Your task to perform on an android device: Open Wikipedia Image 0: 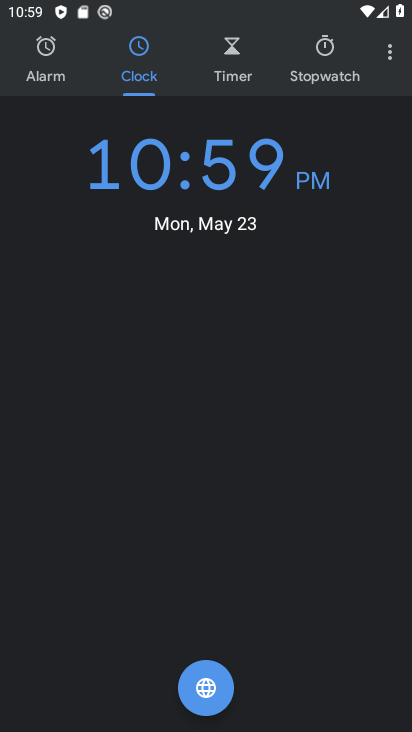
Step 0: press home button
Your task to perform on an android device: Open Wikipedia Image 1: 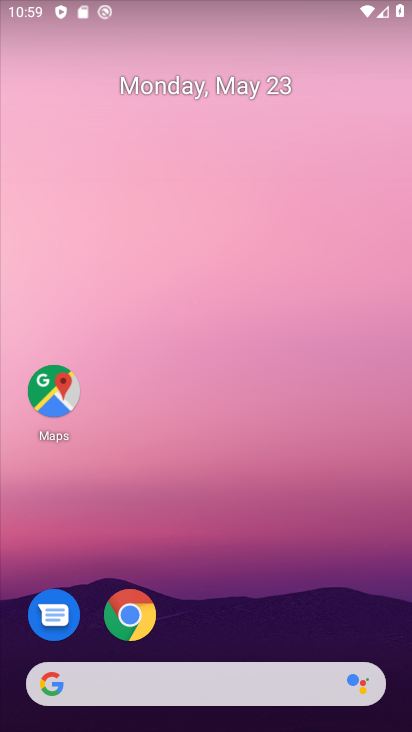
Step 1: click (125, 622)
Your task to perform on an android device: Open Wikipedia Image 2: 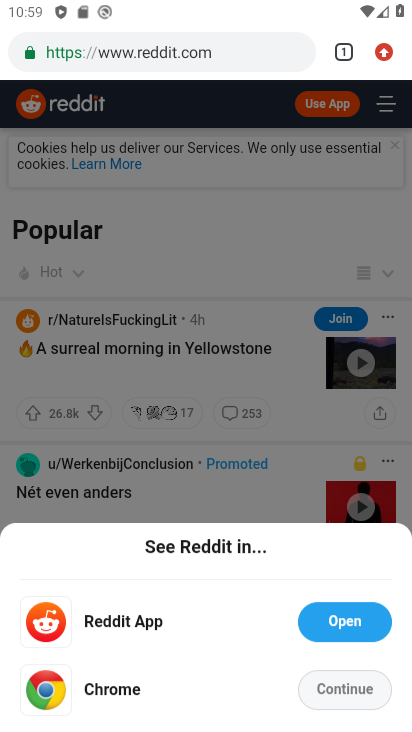
Step 2: click (343, 56)
Your task to perform on an android device: Open Wikipedia Image 3: 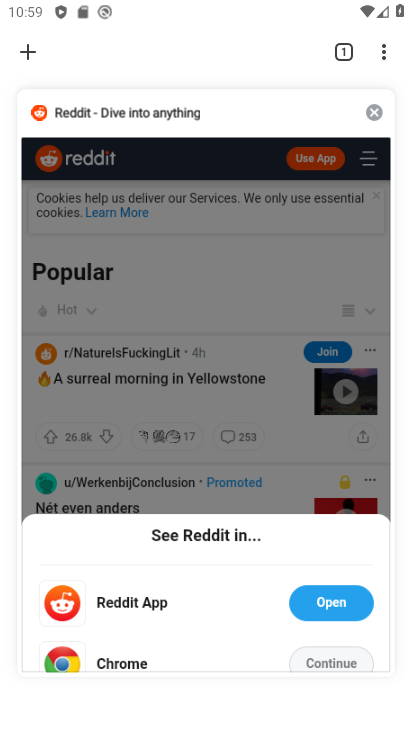
Step 3: click (30, 47)
Your task to perform on an android device: Open Wikipedia Image 4: 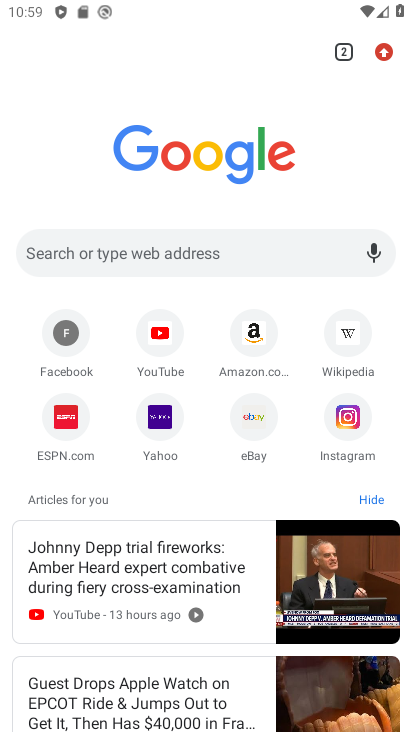
Step 4: click (342, 328)
Your task to perform on an android device: Open Wikipedia Image 5: 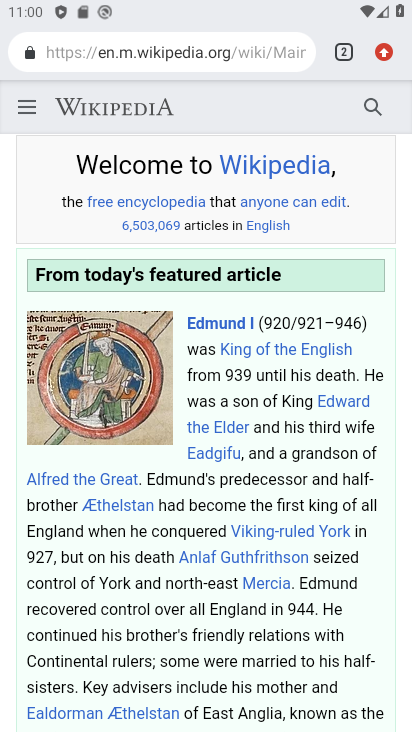
Step 5: task complete